Your task to perform on an android device: star an email in the gmail app Image 0: 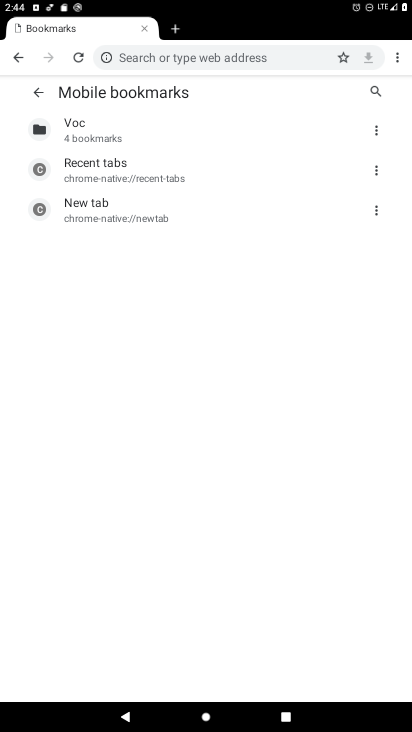
Step 0: press home button
Your task to perform on an android device: star an email in the gmail app Image 1: 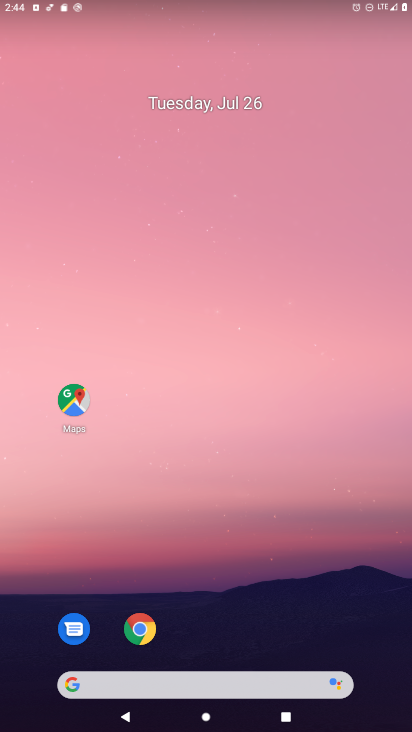
Step 1: drag from (396, 662) to (336, 216)
Your task to perform on an android device: star an email in the gmail app Image 2: 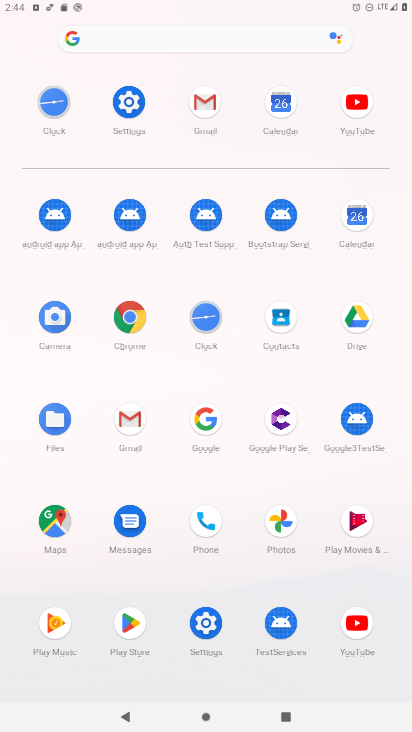
Step 2: click (129, 419)
Your task to perform on an android device: star an email in the gmail app Image 3: 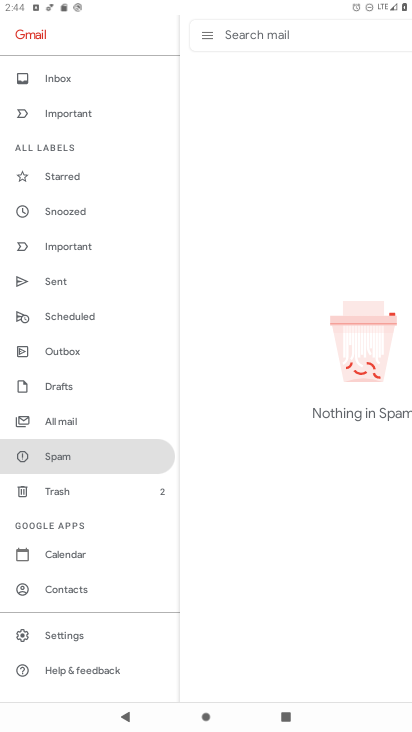
Step 3: click (66, 411)
Your task to perform on an android device: star an email in the gmail app Image 4: 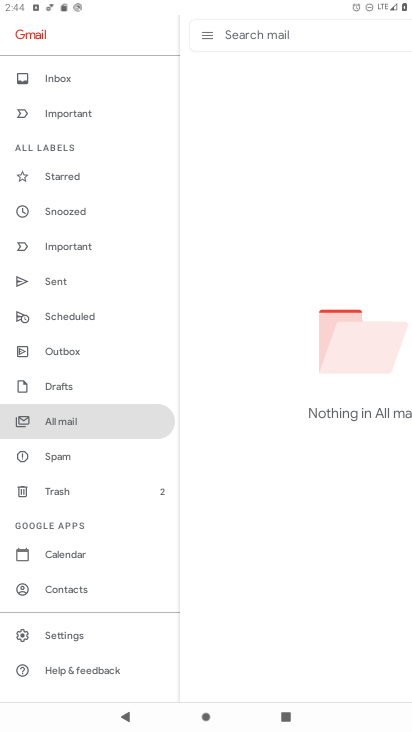
Step 4: task complete